Your task to perform on an android device: Go to Google maps Image 0: 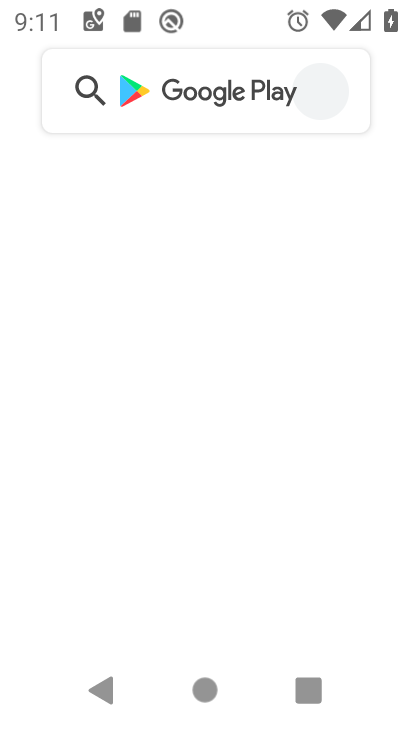
Step 0: press home button
Your task to perform on an android device: Go to Google maps Image 1: 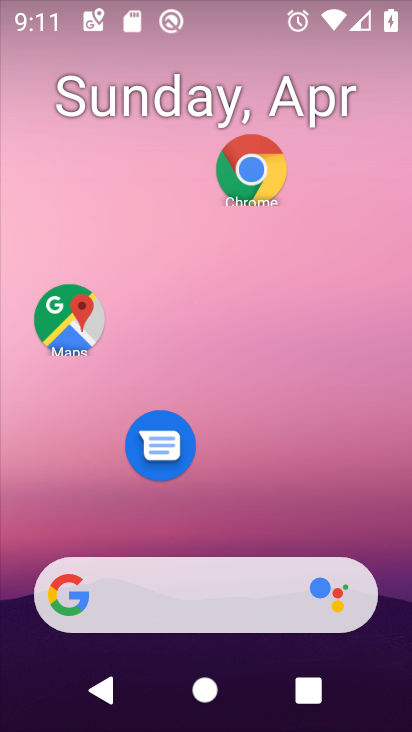
Step 1: click (65, 322)
Your task to perform on an android device: Go to Google maps Image 2: 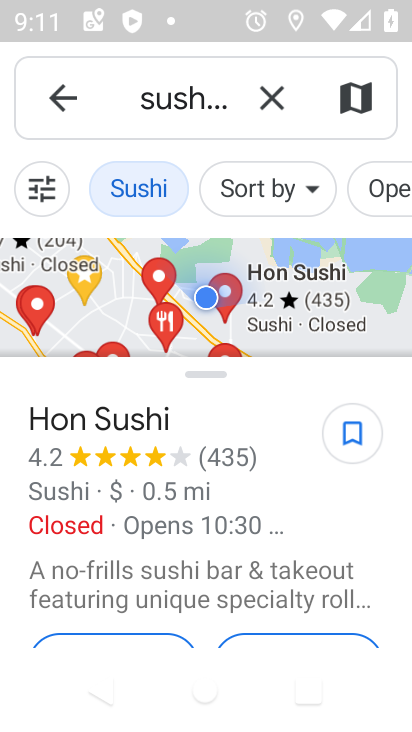
Step 2: task complete